Your task to perform on an android device: Is it going to rain tomorrow? Image 0: 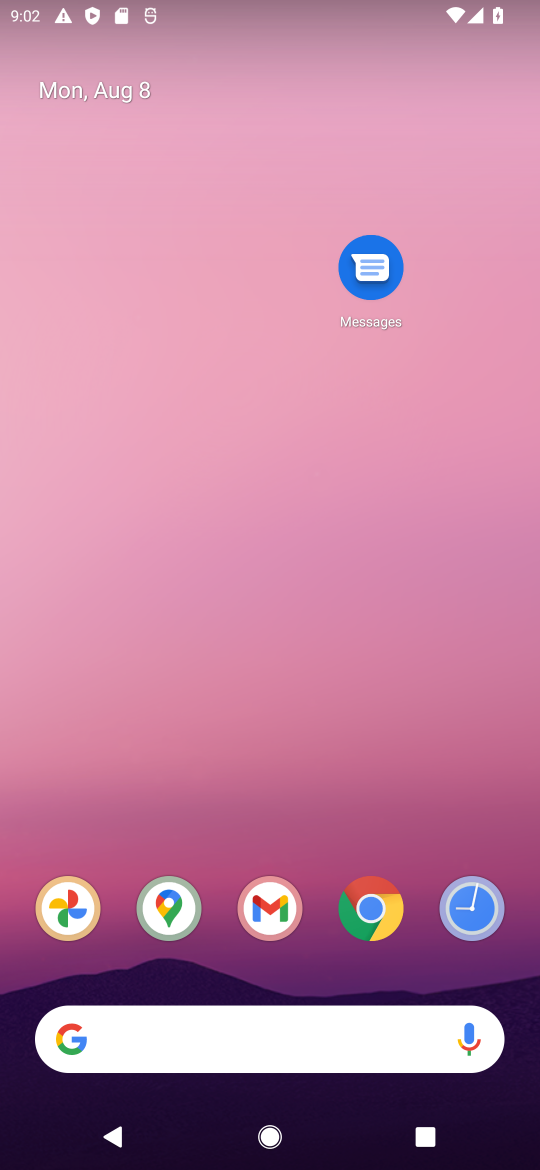
Step 0: click (181, 1050)
Your task to perform on an android device: Is it going to rain tomorrow? Image 1: 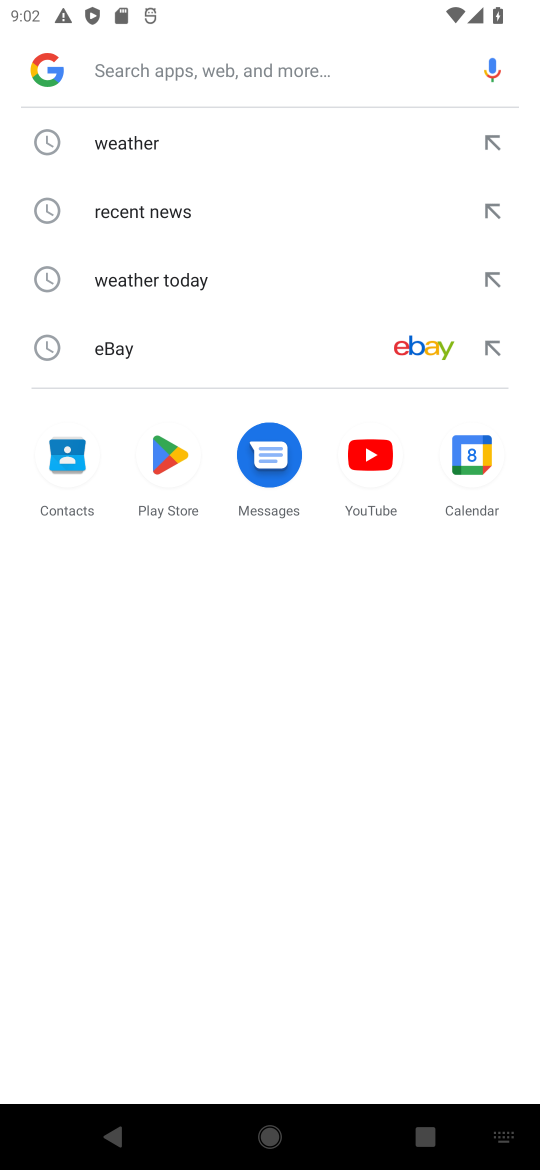
Step 1: click (94, 133)
Your task to perform on an android device: Is it going to rain tomorrow? Image 2: 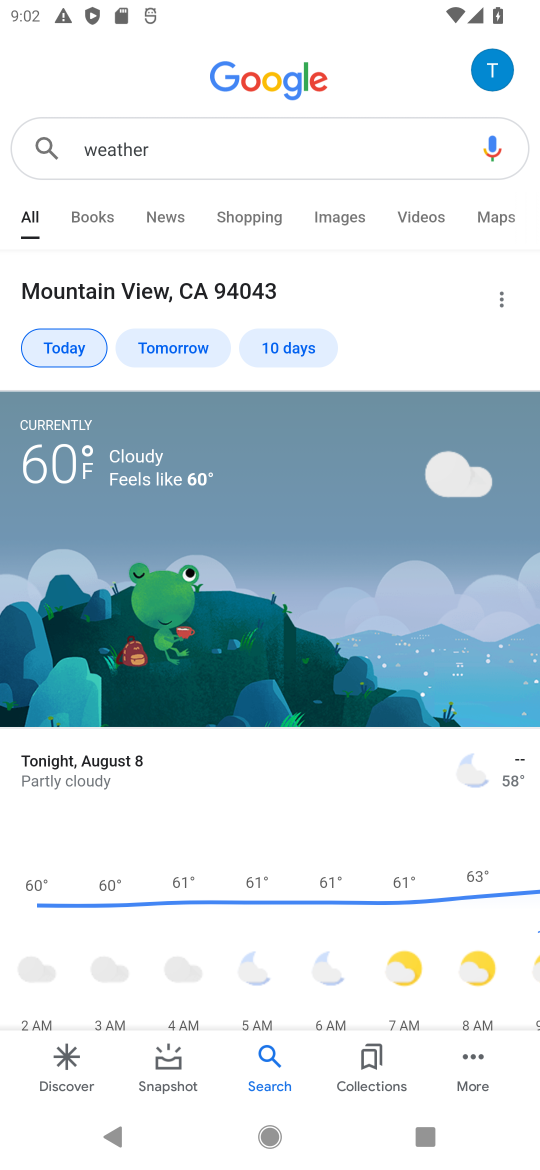
Step 2: task complete